Your task to perform on an android device: stop showing notifications on the lock screen Image 0: 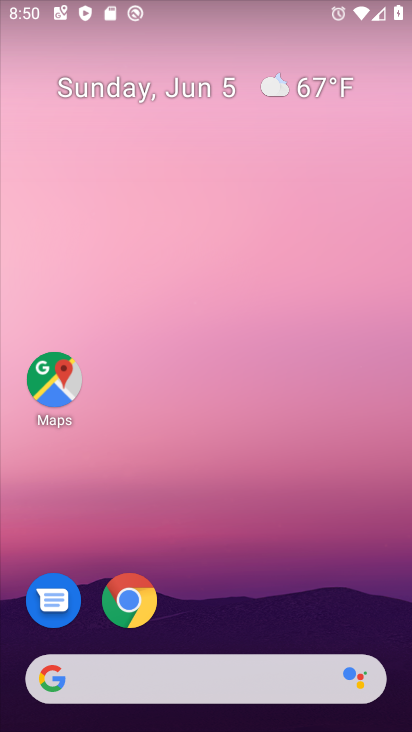
Step 0: drag from (397, 680) to (317, 91)
Your task to perform on an android device: stop showing notifications on the lock screen Image 1: 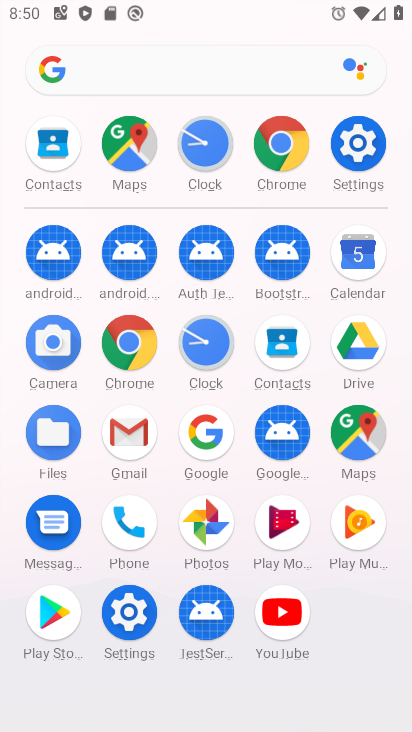
Step 1: click (361, 171)
Your task to perform on an android device: stop showing notifications on the lock screen Image 2: 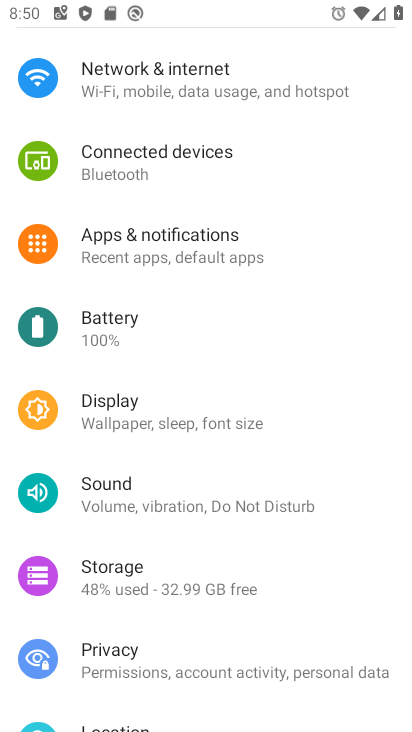
Step 2: click (253, 249)
Your task to perform on an android device: stop showing notifications on the lock screen Image 3: 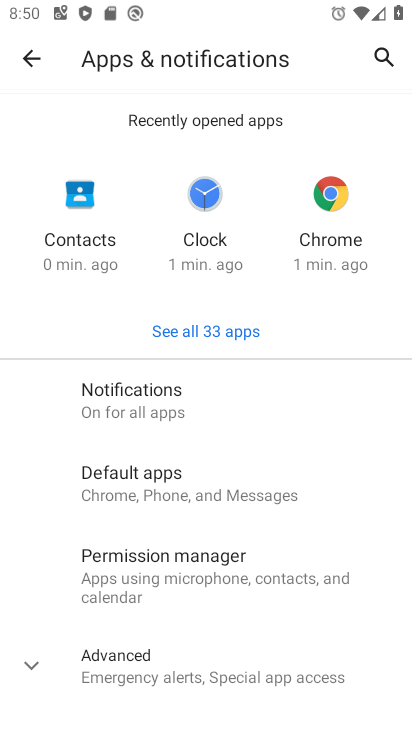
Step 3: click (266, 390)
Your task to perform on an android device: stop showing notifications on the lock screen Image 4: 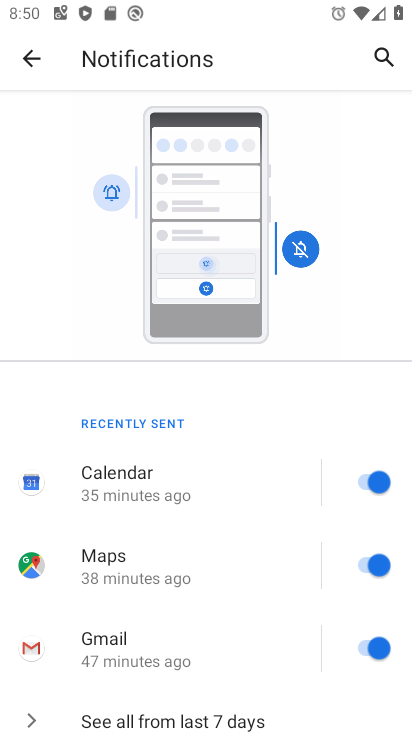
Step 4: drag from (234, 703) to (233, 108)
Your task to perform on an android device: stop showing notifications on the lock screen Image 5: 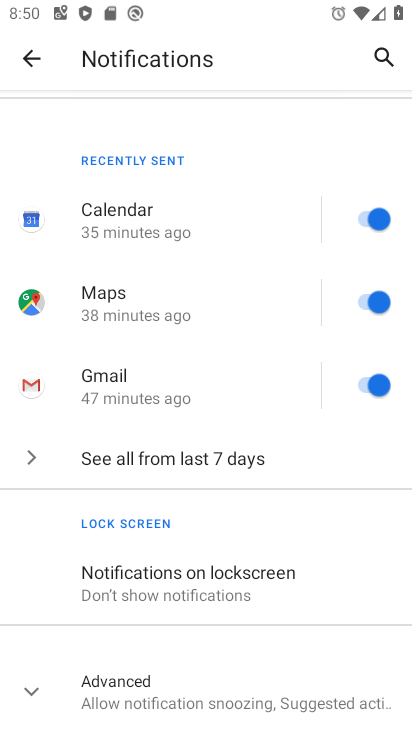
Step 5: click (215, 582)
Your task to perform on an android device: stop showing notifications on the lock screen Image 6: 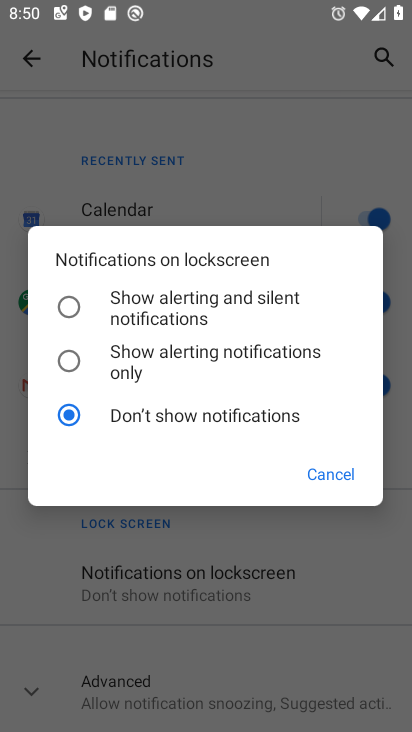
Step 6: task complete